Your task to perform on an android device: change the clock display to digital Image 0: 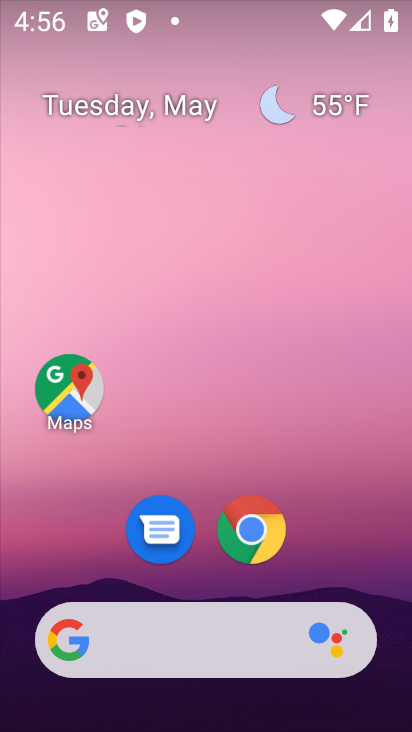
Step 0: drag from (295, 694) to (159, 73)
Your task to perform on an android device: change the clock display to digital Image 1: 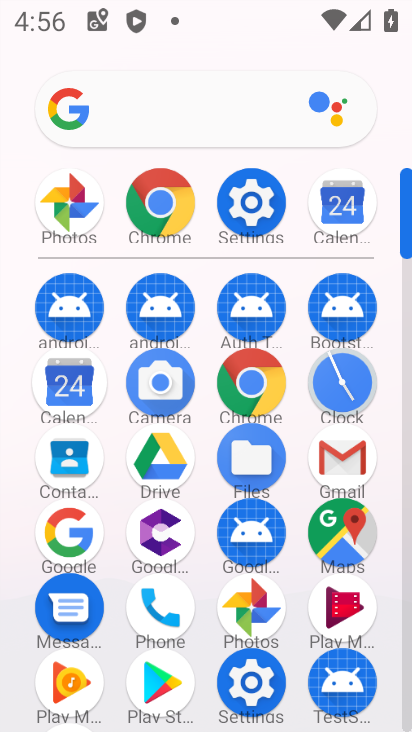
Step 1: click (349, 398)
Your task to perform on an android device: change the clock display to digital Image 2: 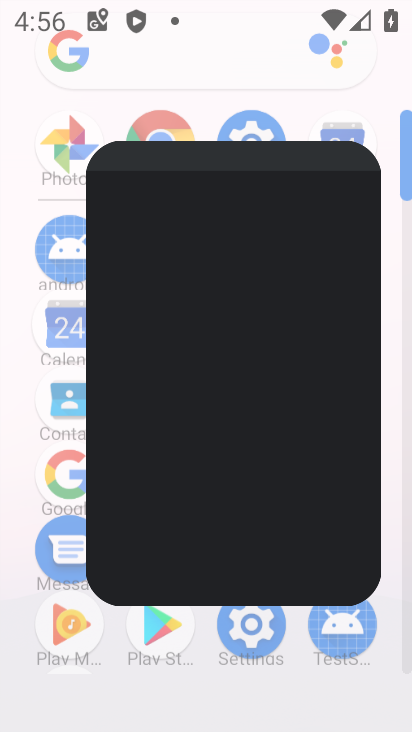
Step 2: click (347, 411)
Your task to perform on an android device: change the clock display to digital Image 3: 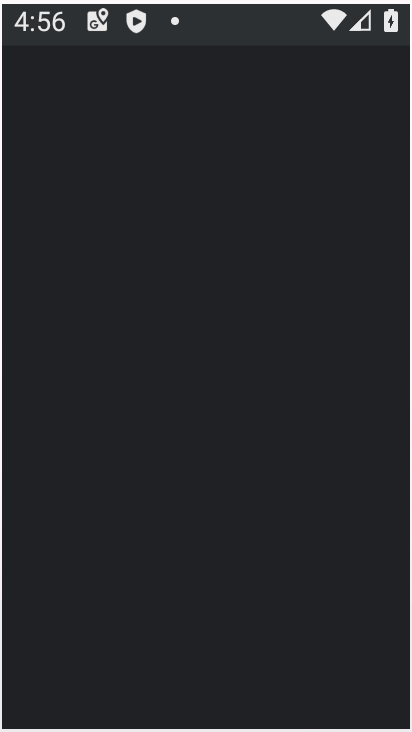
Step 3: click (326, 389)
Your task to perform on an android device: change the clock display to digital Image 4: 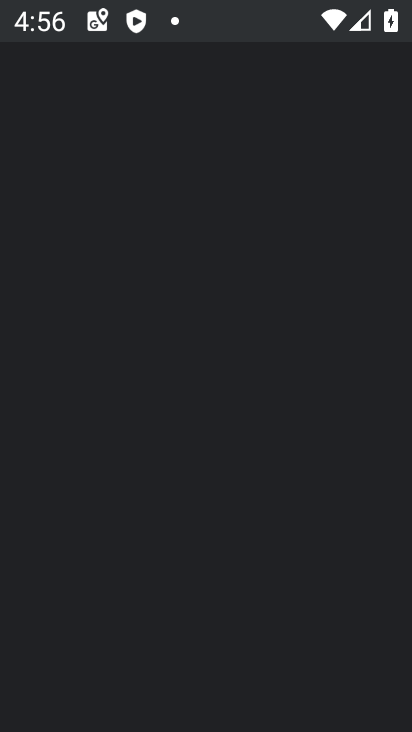
Step 4: click (319, 395)
Your task to perform on an android device: change the clock display to digital Image 5: 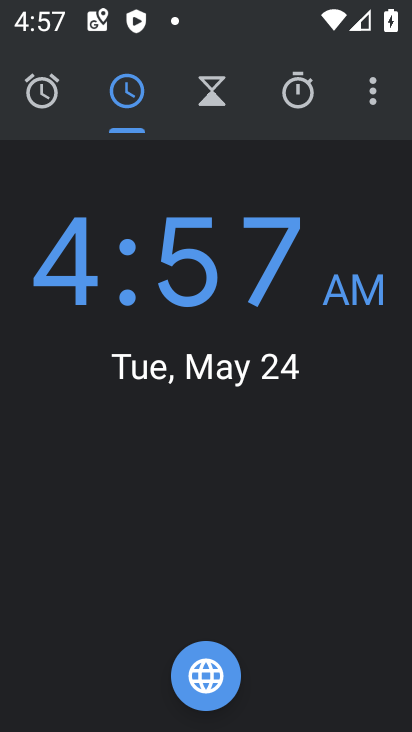
Step 5: click (370, 102)
Your task to perform on an android device: change the clock display to digital Image 6: 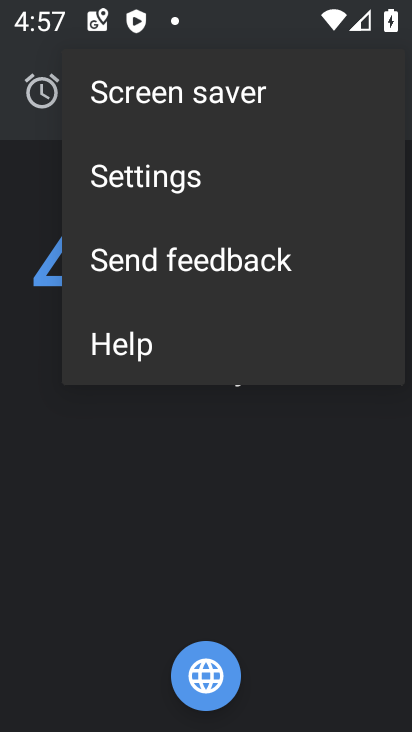
Step 6: click (141, 182)
Your task to perform on an android device: change the clock display to digital Image 7: 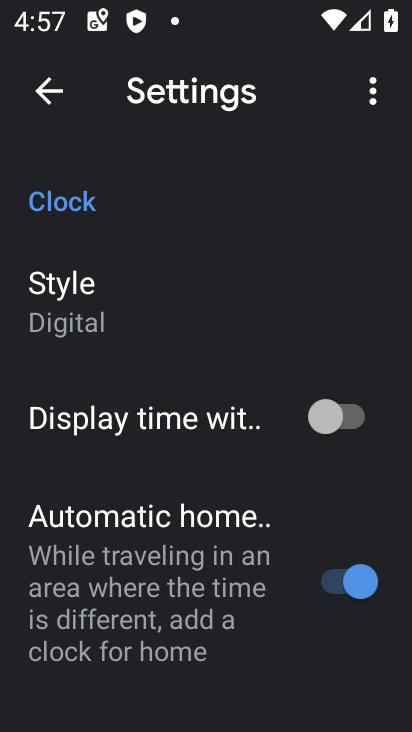
Step 7: click (155, 295)
Your task to perform on an android device: change the clock display to digital Image 8: 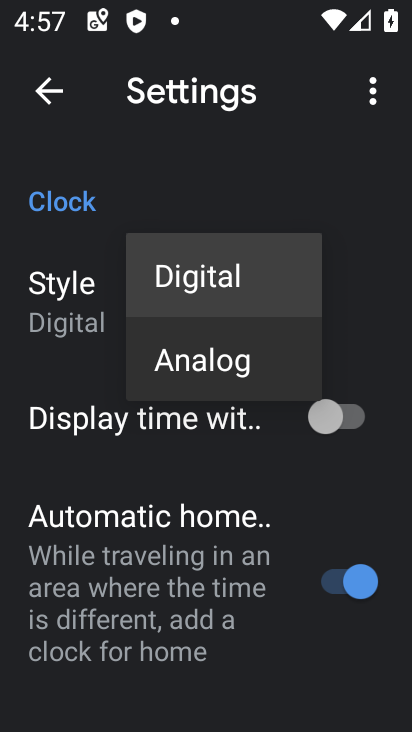
Step 8: click (192, 358)
Your task to perform on an android device: change the clock display to digital Image 9: 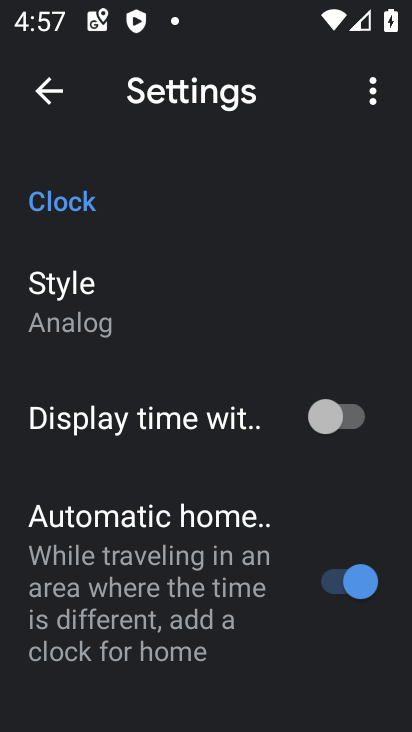
Step 9: click (113, 287)
Your task to perform on an android device: change the clock display to digital Image 10: 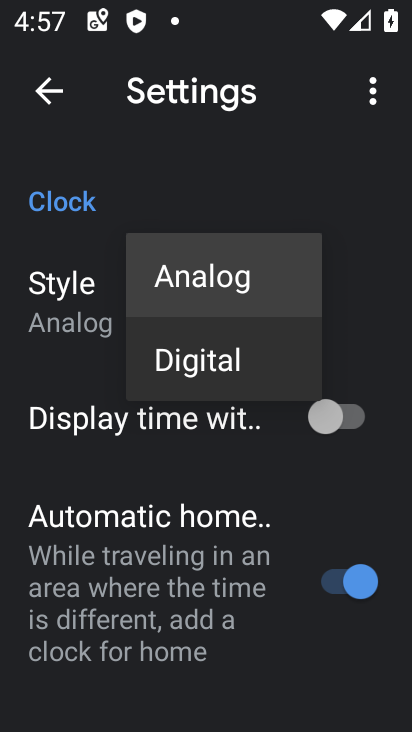
Step 10: click (213, 276)
Your task to perform on an android device: change the clock display to digital Image 11: 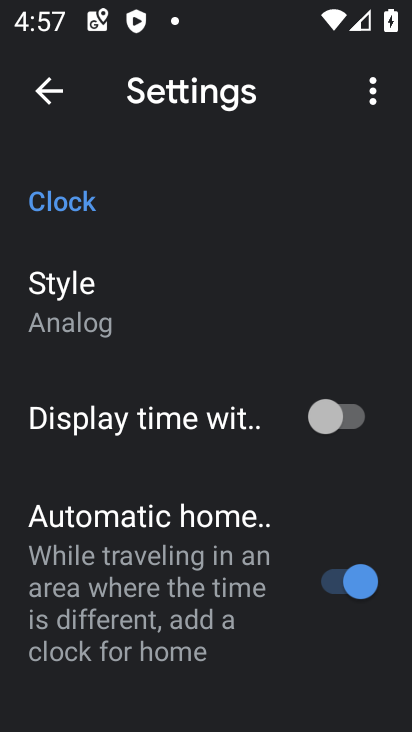
Step 11: task complete